Your task to perform on an android device: turn off notifications settings in the gmail app Image 0: 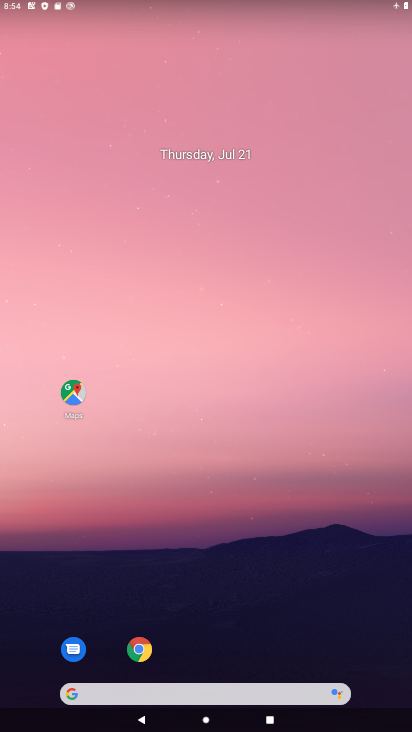
Step 0: drag from (210, 585) to (411, 303)
Your task to perform on an android device: turn off notifications settings in the gmail app Image 1: 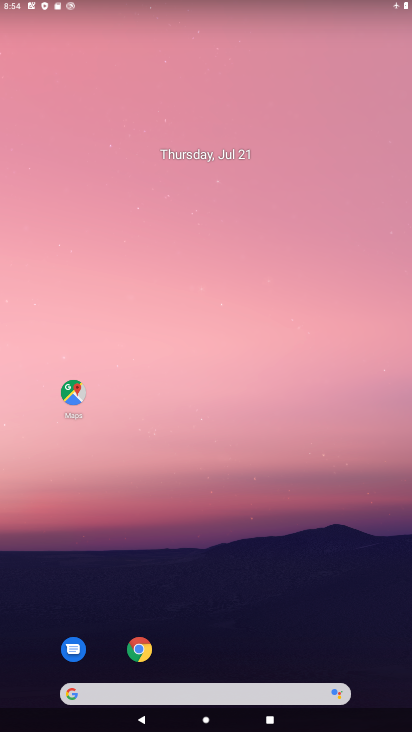
Step 1: drag from (240, 666) to (208, 106)
Your task to perform on an android device: turn off notifications settings in the gmail app Image 2: 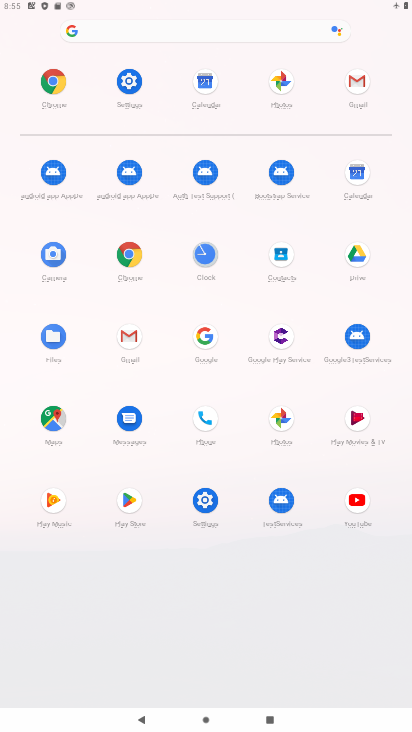
Step 2: click (128, 342)
Your task to perform on an android device: turn off notifications settings in the gmail app Image 3: 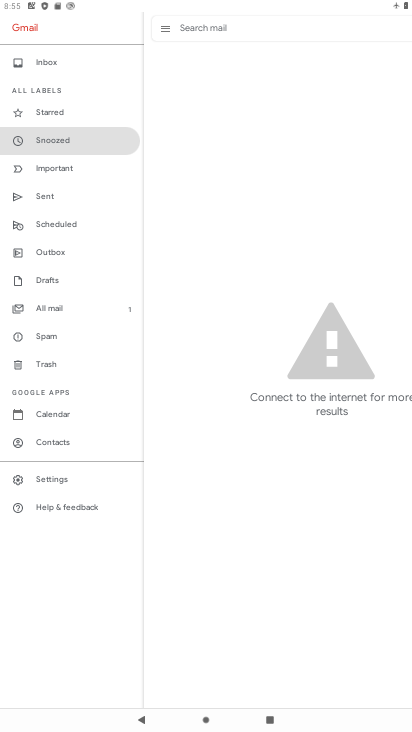
Step 3: click (56, 480)
Your task to perform on an android device: turn off notifications settings in the gmail app Image 4: 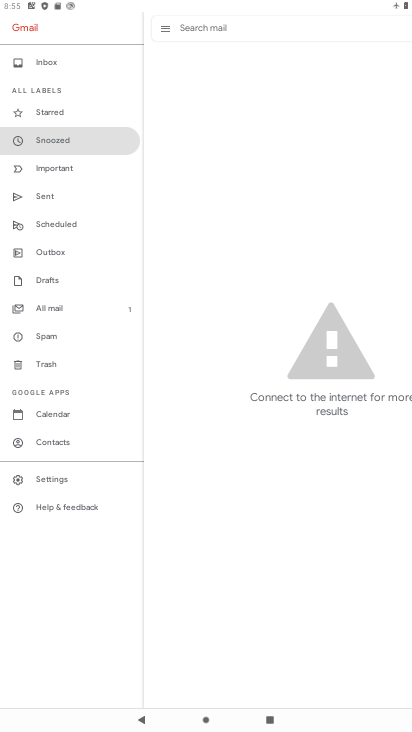
Step 4: click (58, 481)
Your task to perform on an android device: turn off notifications settings in the gmail app Image 5: 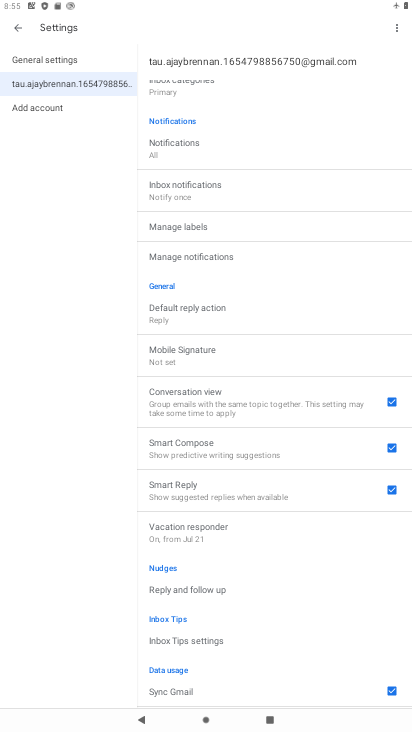
Step 5: click (66, 62)
Your task to perform on an android device: turn off notifications settings in the gmail app Image 6: 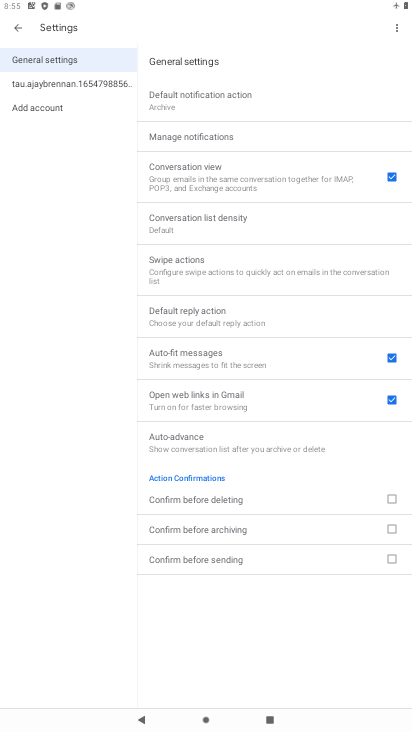
Step 6: click (228, 138)
Your task to perform on an android device: turn off notifications settings in the gmail app Image 7: 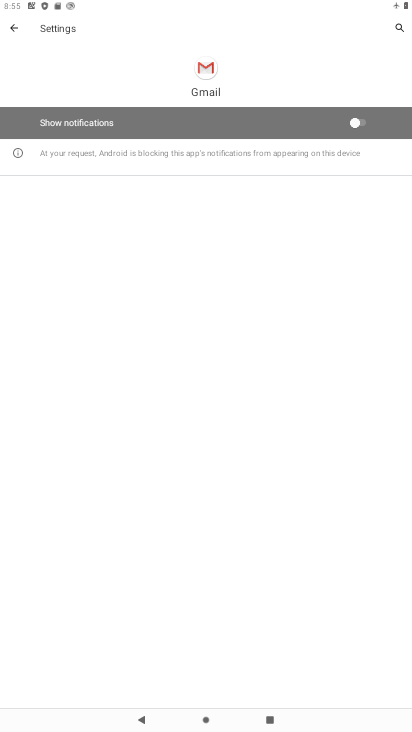
Step 7: task complete